Your task to perform on an android device: turn off wifi Image 0: 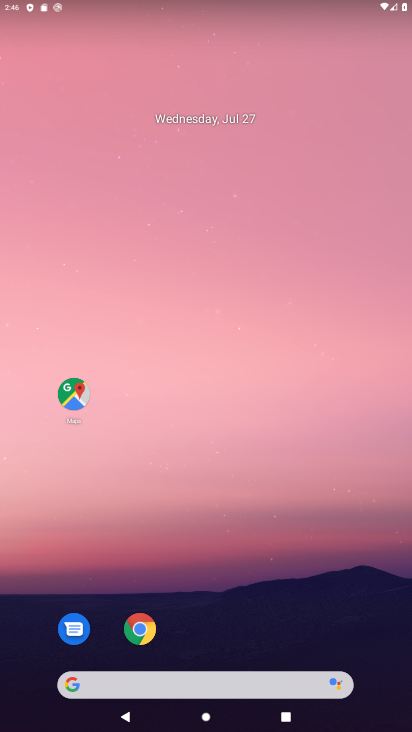
Step 0: drag from (201, 3) to (175, 449)
Your task to perform on an android device: turn off wifi Image 1: 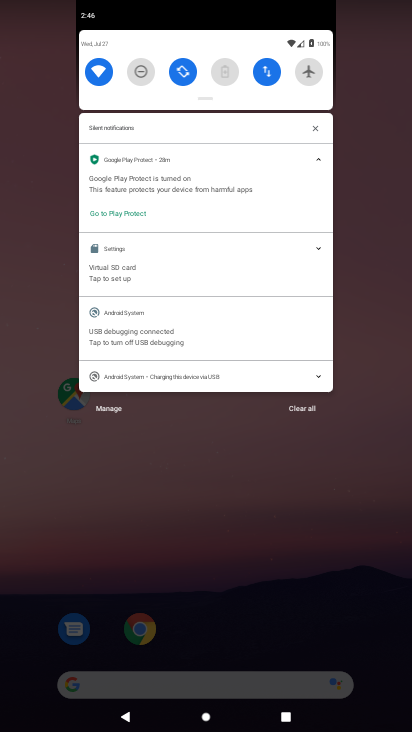
Step 1: click (108, 72)
Your task to perform on an android device: turn off wifi Image 2: 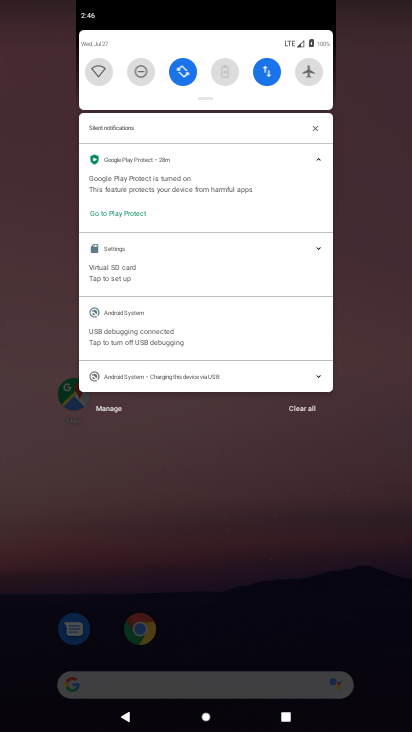
Step 2: task complete